Your task to perform on an android device: change text size in settings app Image 0: 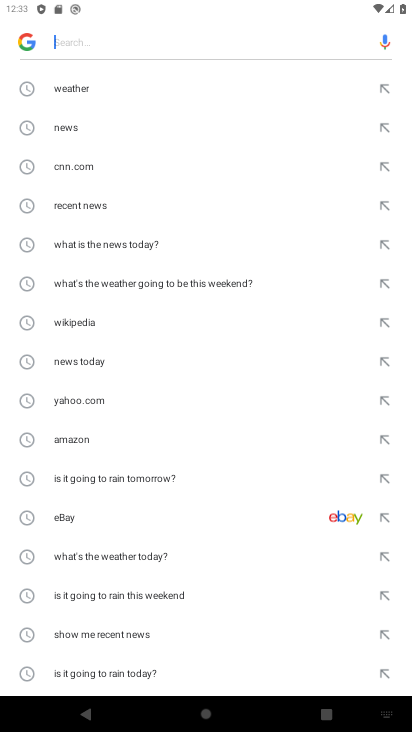
Step 0: press home button
Your task to perform on an android device: change text size in settings app Image 1: 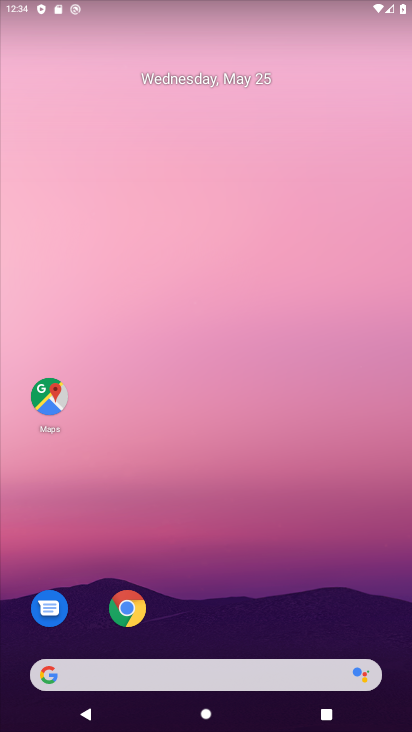
Step 1: drag from (284, 618) to (272, 4)
Your task to perform on an android device: change text size in settings app Image 2: 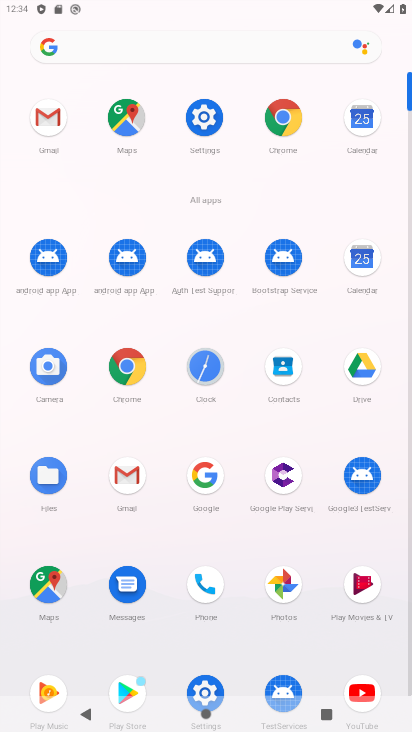
Step 2: click (216, 108)
Your task to perform on an android device: change text size in settings app Image 3: 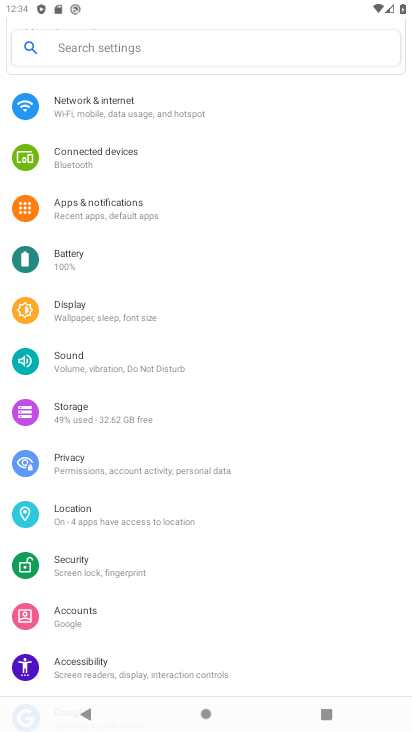
Step 3: click (145, 317)
Your task to perform on an android device: change text size in settings app Image 4: 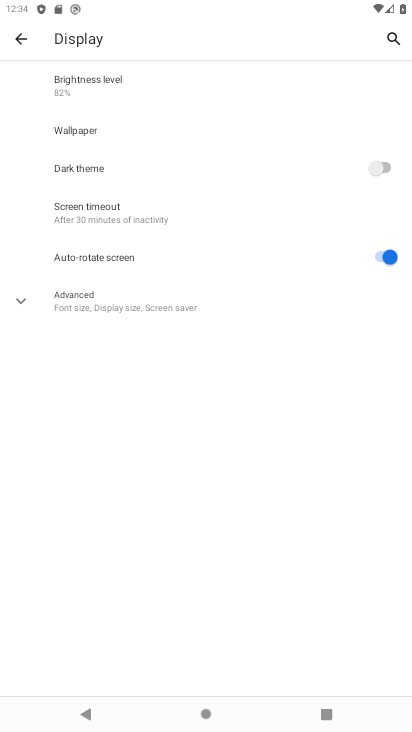
Step 4: click (121, 305)
Your task to perform on an android device: change text size in settings app Image 5: 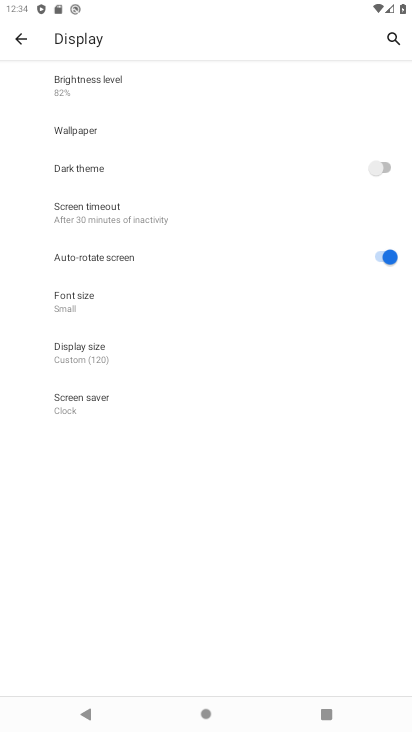
Step 5: click (157, 296)
Your task to perform on an android device: change text size in settings app Image 6: 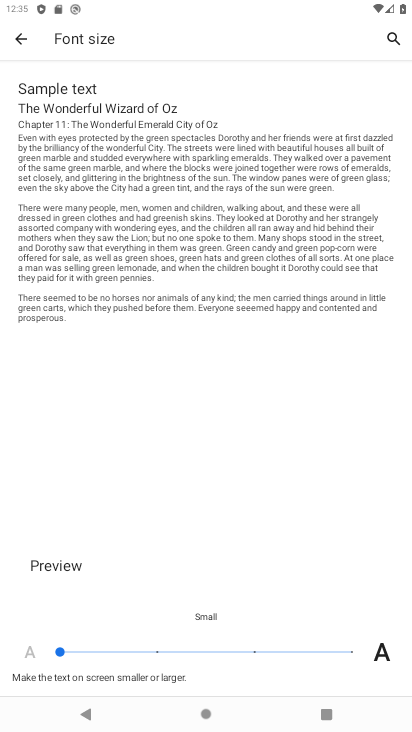
Step 6: click (153, 654)
Your task to perform on an android device: change text size in settings app Image 7: 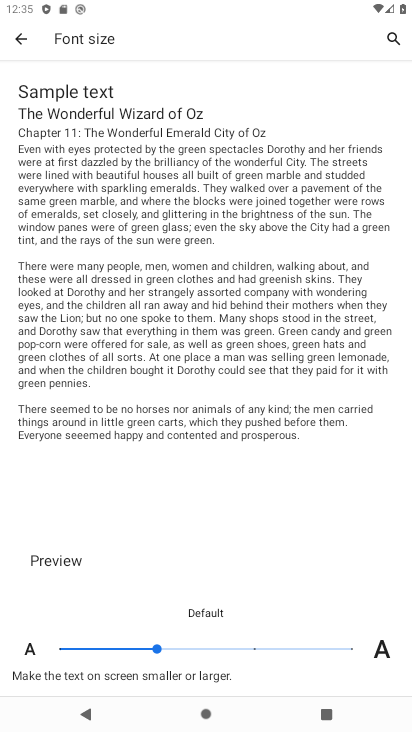
Step 7: task complete